Your task to perform on an android device: What's the weather going to be tomorrow? Image 0: 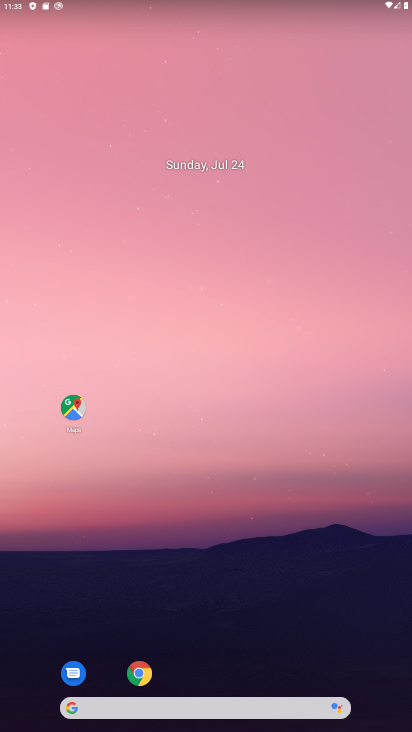
Step 0: drag from (202, 705) to (207, 228)
Your task to perform on an android device: What's the weather going to be tomorrow? Image 1: 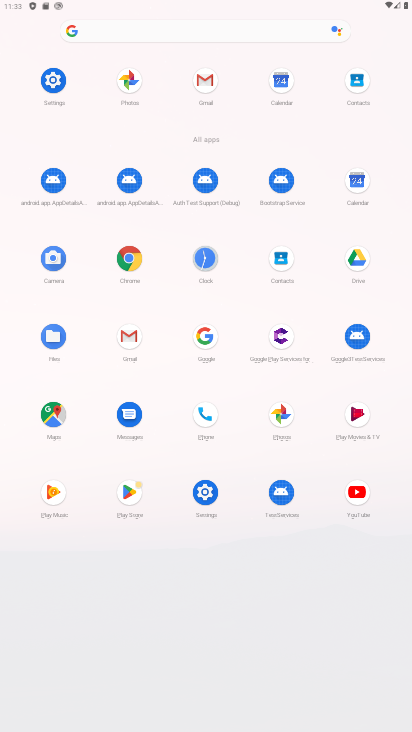
Step 1: click (204, 335)
Your task to perform on an android device: What's the weather going to be tomorrow? Image 2: 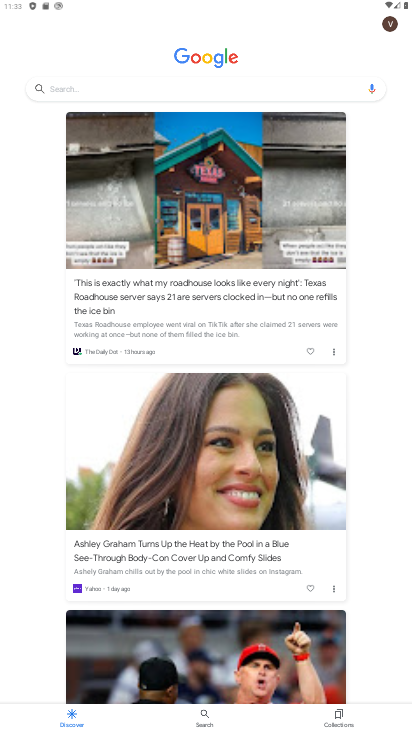
Step 2: click (252, 88)
Your task to perform on an android device: What's the weather going to be tomorrow? Image 3: 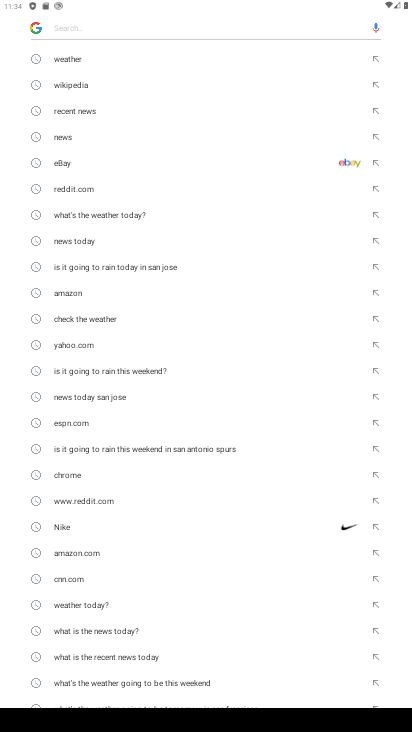
Step 3: type "What's the weather going to be tomorrow?"
Your task to perform on an android device: What's the weather going to be tomorrow? Image 4: 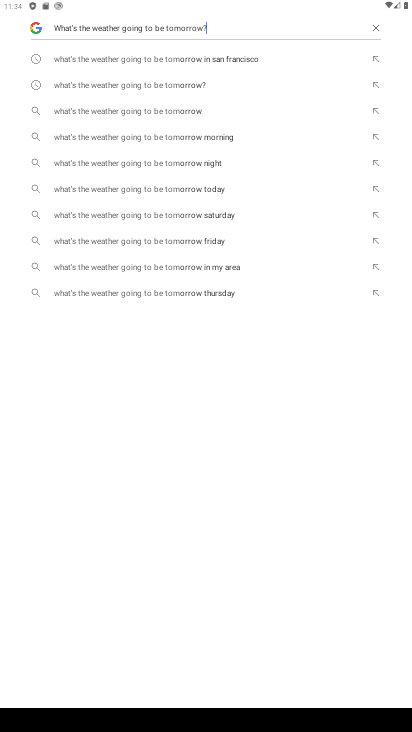
Step 4: type ""
Your task to perform on an android device: What's the weather going to be tomorrow? Image 5: 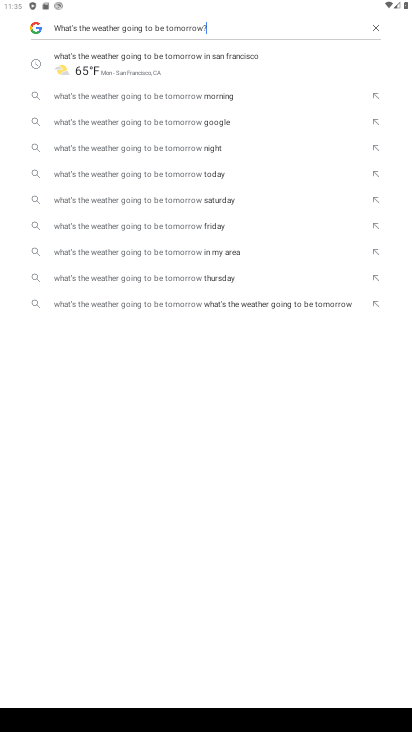
Step 5: click (150, 57)
Your task to perform on an android device: What's the weather going to be tomorrow? Image 6: 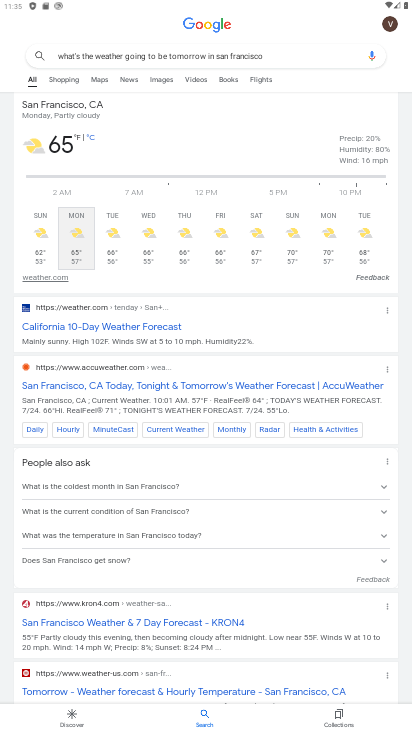
Step 6: task complete